Your task to perform on an android device: turn off data saver in the chrome app Image 0: 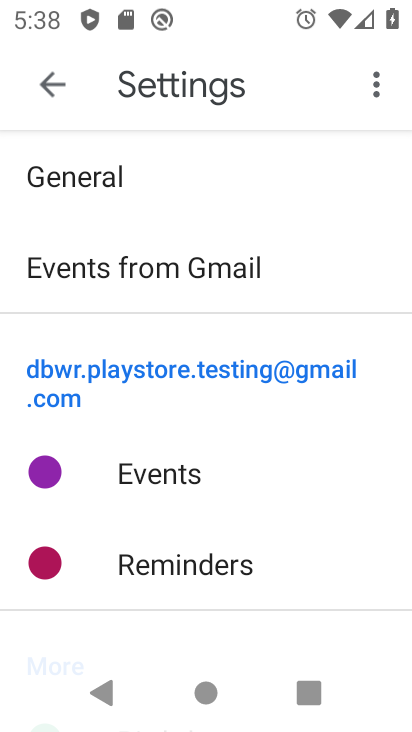
Step 0: press home button
Your task to perform on an android device: turn off data saver in the chrome app Image 1: 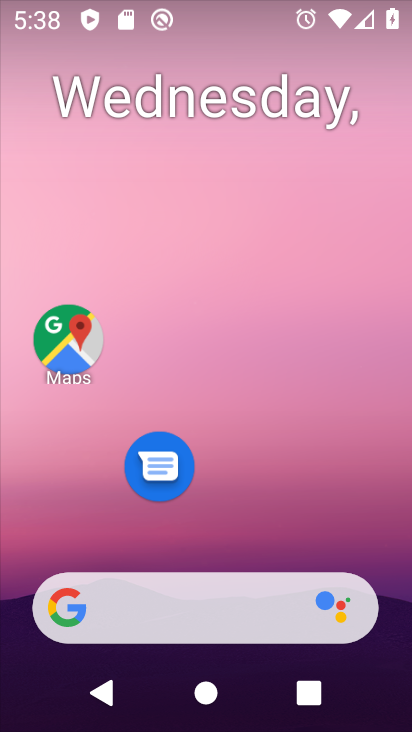
Step 1: drag from (336, 513) to (257, 120)
Your task to perform on an android device: turn off data saver in the chrome app Image 2: 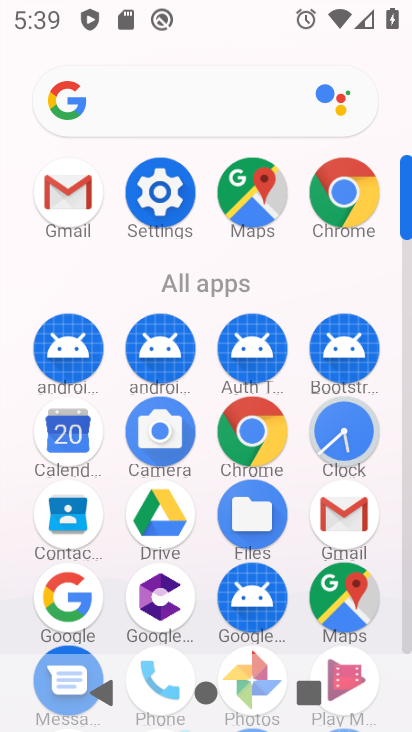
Step 2: click (261, 428)
Your task to perform on an android device: turn off data saver in the chrome app Image 3: 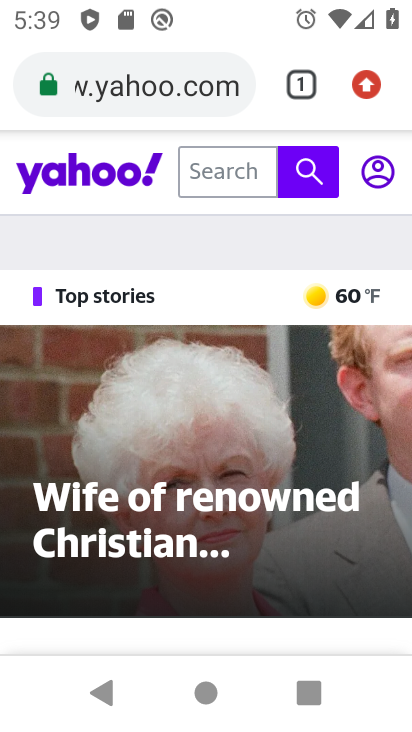
Step 3: drag from (372, 86) to (146, 515)
Your task to perform on an android device: turn off data saver in the chrome app Image 4: 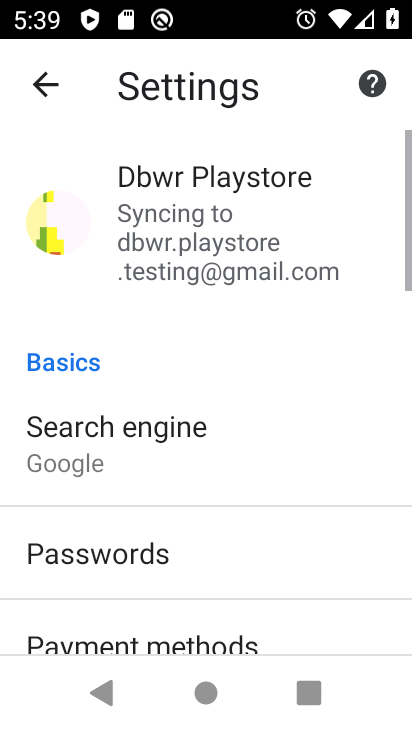
Step 4: drag from (299, 577) to (328, 183)
Your task to perform on an android device: turn off data saver in the chrome app Image 5: 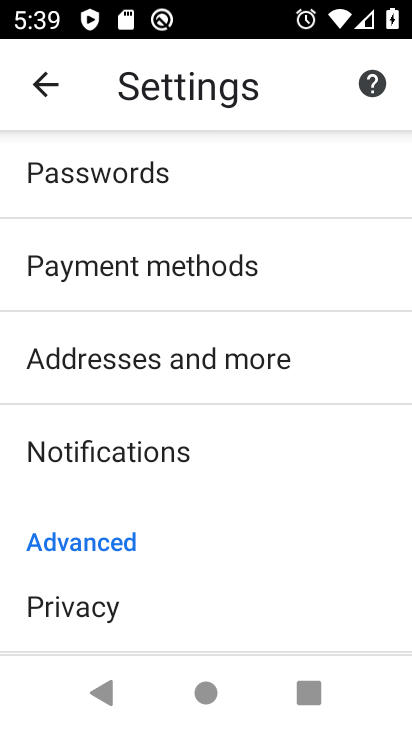
Step 5: drag from (273, 616) to (313, 208)
Your task to perform on an android device: turn off data saver in the chrome app Image 6: 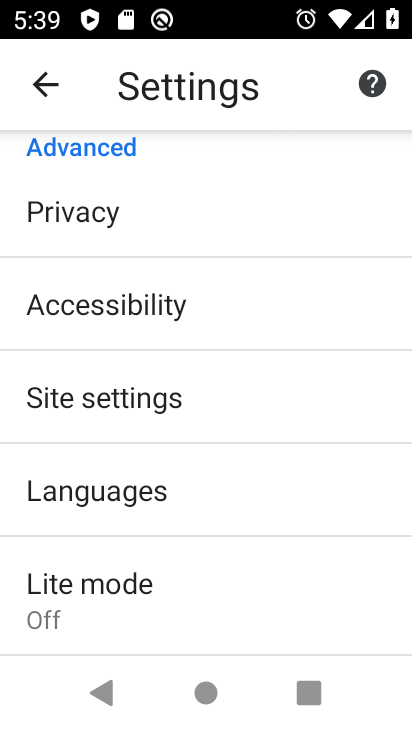
Step 6: click (92, 584)
Your task to perform on an android device: turn off data saver in the chrome app Image 7: 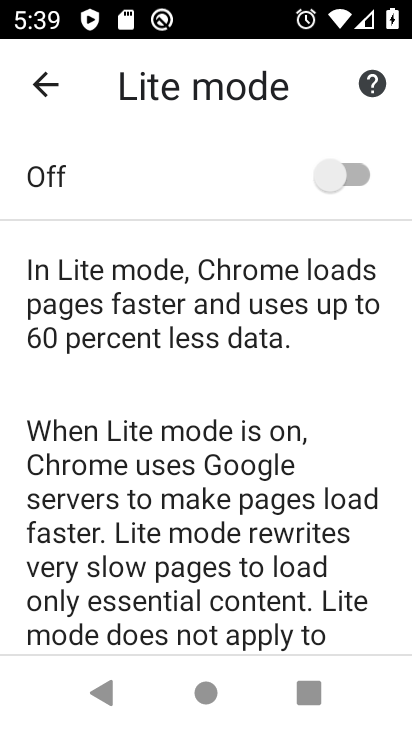
Step 7: task complete